Your task to perform on an android device: Open maps Image 0: 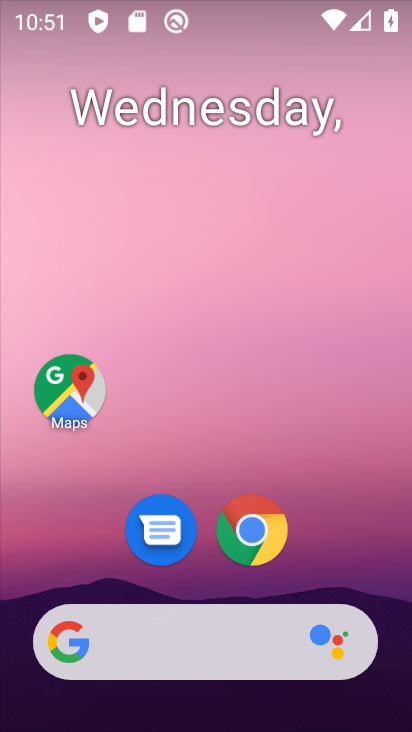
Step 0: click (56, 399)
Your task to perform on an android device: Open maps Image 1: 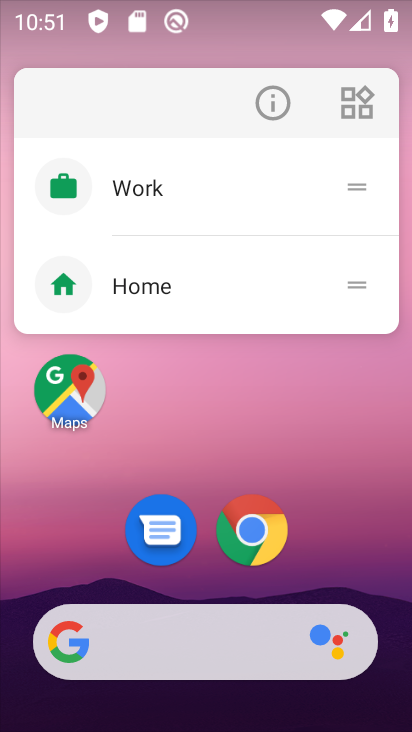
Step 1: click (98, 429)
Your task to perform on an android device: Open maps Image 2: 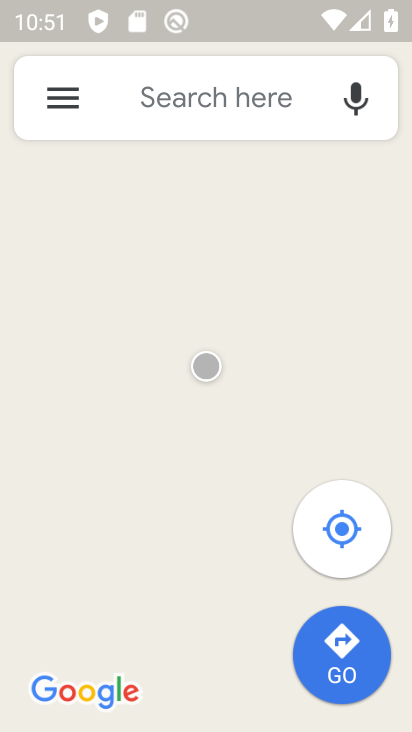
Step 2: task complete